Your task to perform on an android device: turn off data saver in the chrome app Image 0: 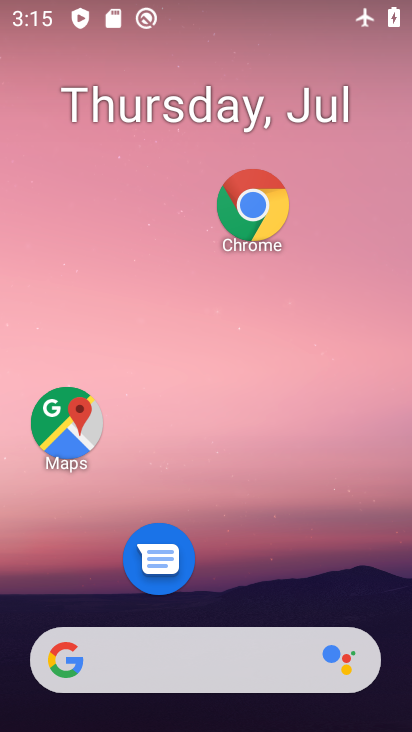
Step 0: drag from (238, 553) to (241, 108)
Your task to perform on an android device: turn off data saver in the chrome app Image 1: 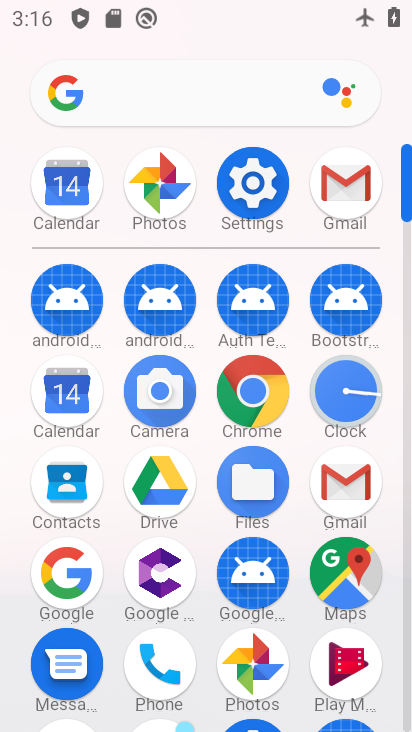
Step 1: click (278, 422)
Your task to perform on an android device: turn off data saver in the chrome app Image 2: 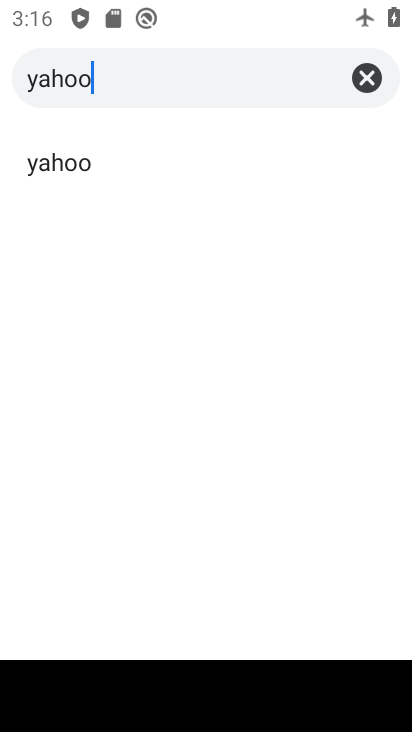
Step 2: click (363, 85)
Your task to perform on an android device: turn off data saver in the chrome app Image 3: 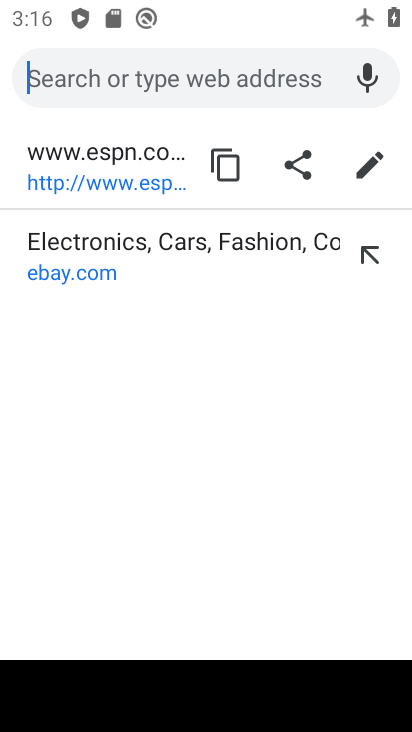
Step 3: press back button
Your task to perform on an android device: turn off data saver in the chrome app Image 4: 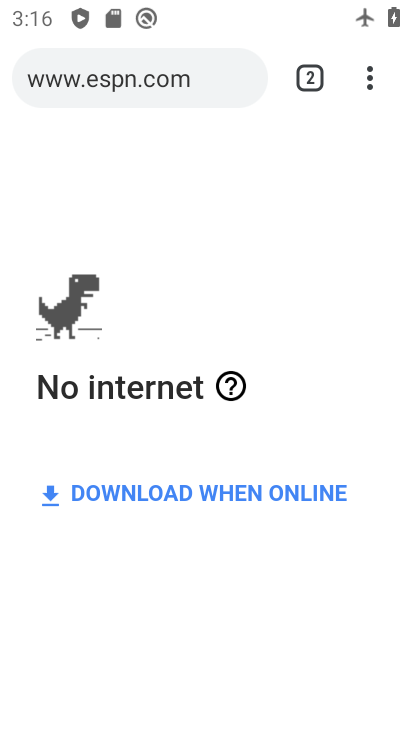
Step 4: click (369, 84)
Your task to perform on an android device: turn off data saver in the chrome app Image 5: 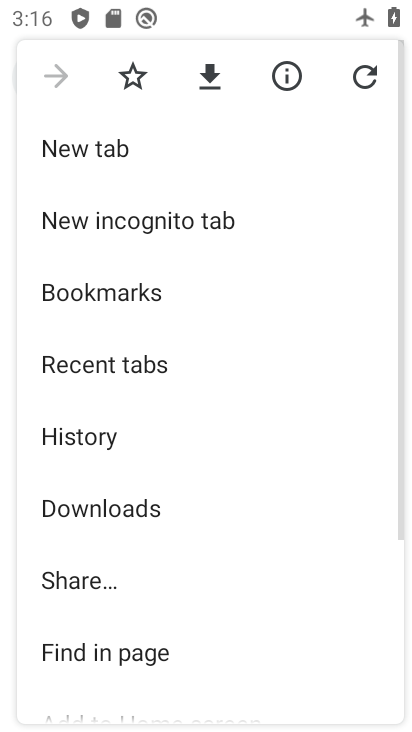
Step 5: drag from (103, 560) to (101, 177)
Your task to perform on an android device: turn off data saver in the chrome app Image 6: 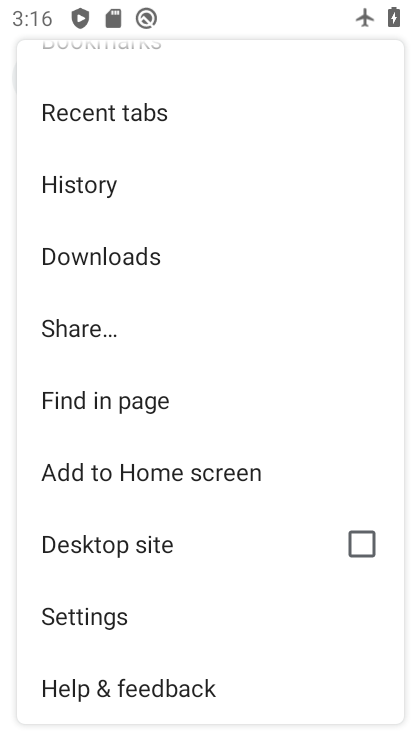
Step 6: click (119, 620)
Your task to perform on an android device: turn off data saver in the chrome app Image 7: 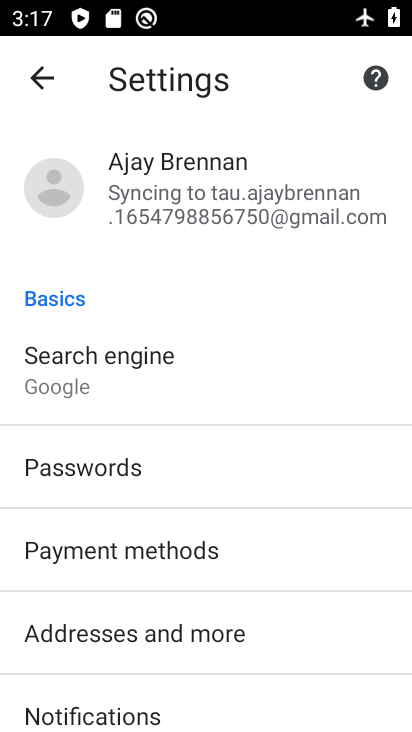
Step 7: drag from (140, 577) to (121, 276)
Your task to perform on an android device: turn off data saver in the chrome app Image 8: 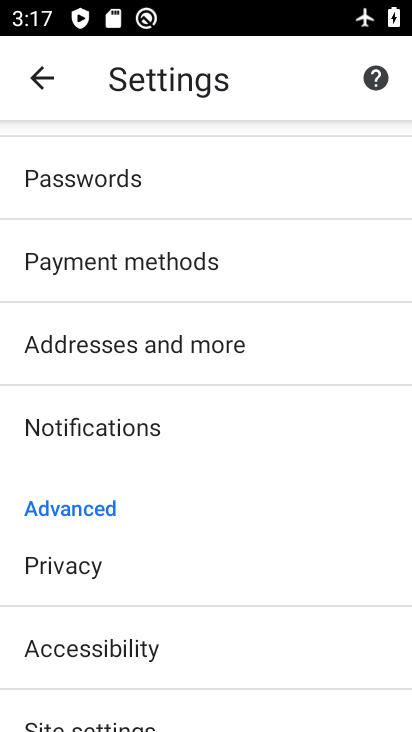
Step 8: drag from (124, 619) to (136, 263)
Your task to perform on an android device: turn off data saver in the chrome app Image 9: 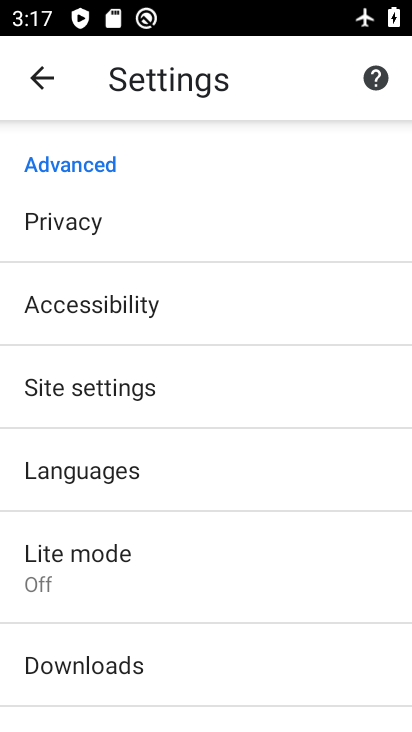
Step 9: drag from (122, 608) to (125, 437)
Your task to perform on an android device: turn off data saver in the chrome app Image 10: 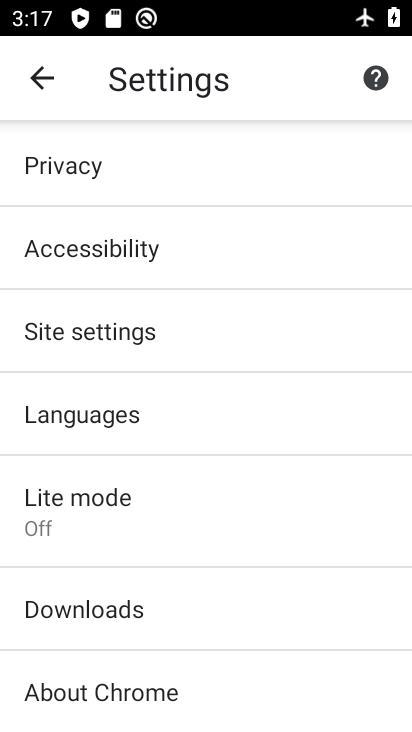
Step 10: drag from (125, 581) to (112, 438)
Your task to perform on an android device: turn off data saver in the chrome app Image 11: 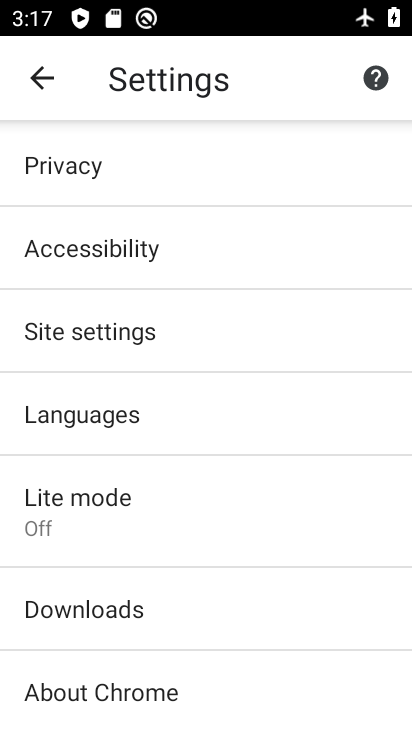
Step 11: click (105, 511)
Your task to perform on an android device: turn off data saver in the chrome app Image 12: 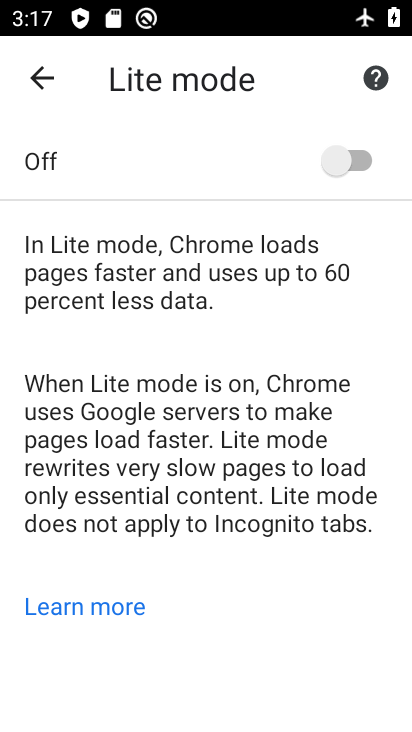
Step 12: task complete